Your task to perform on an android device: turn off notifications settings in the gmail app Image 0: 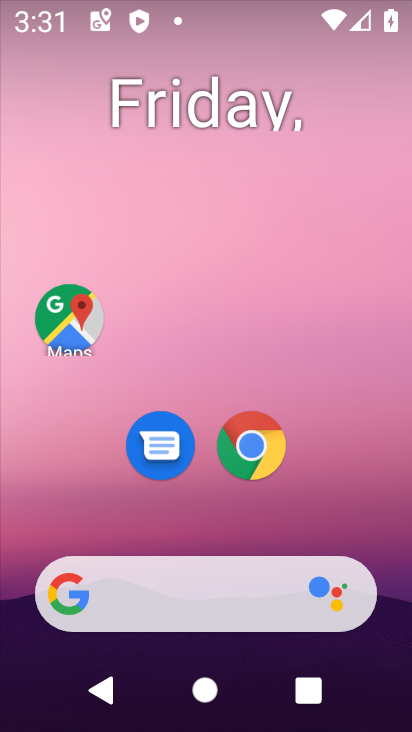
Step 0: drag from (196, 547) to (319, 11)
Your task to perform on an android device: turn off notifications settings in the gmail app Image 1: 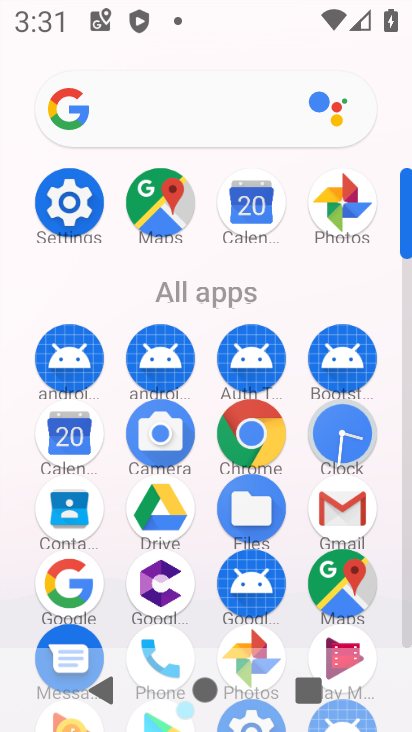
Step 1: click (344, 510)
Your task to perform on an android device: turn off notifications settings in the gmail app Image 2: 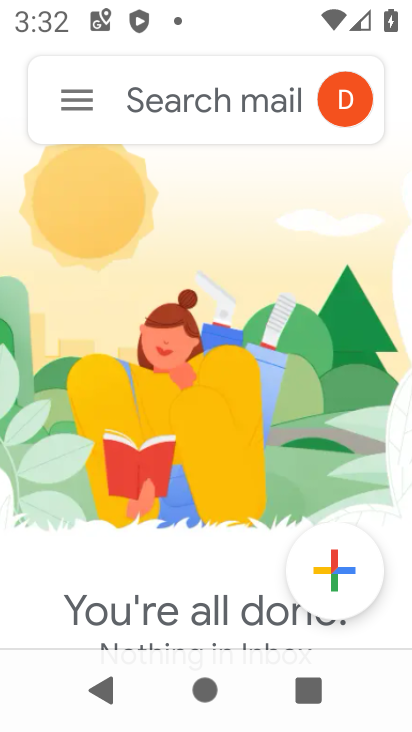
Step 2: click (83, 115)
Your task to perform on an android device: turn off notifications settings in the gmail app Image 3: 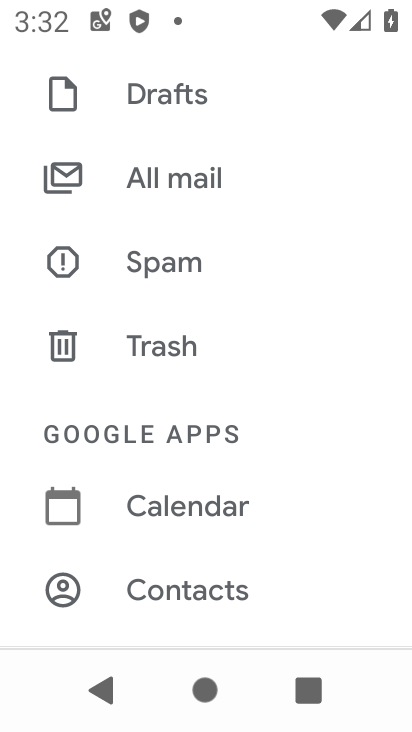
Step 3: drag from (145, 515) to (230, 156)
Your task to perform on an android device: turn off notifications settings in the gmail app Image 4: 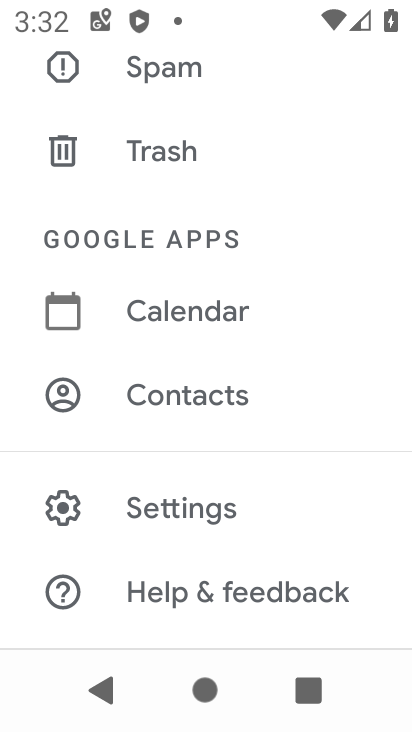
Step 4: click (172, 512)
Your task to perform on an android device: turn off notifications settings in the gmail app Image 5: 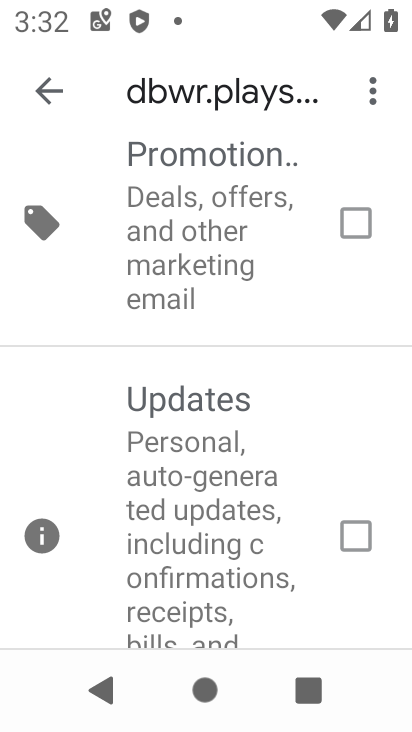
Step 5: click (56, 88)
Your task to perform on an android device: turn off notifications settings in the gmail app Image 6: 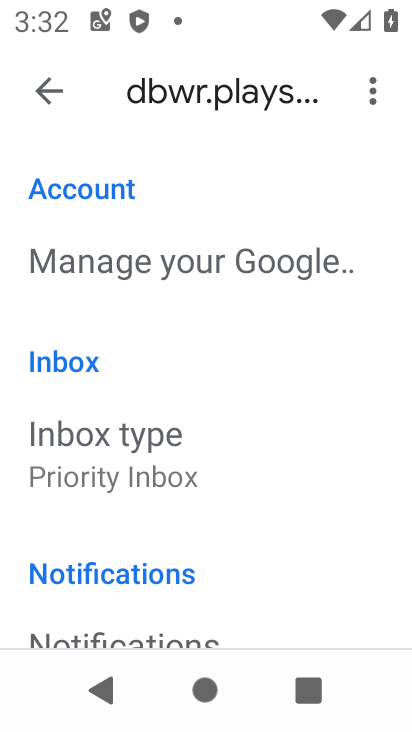
Step 6: click (51, 88)
Your task to perform on an android device: turn off notifications settings in the gmail app Image 7: 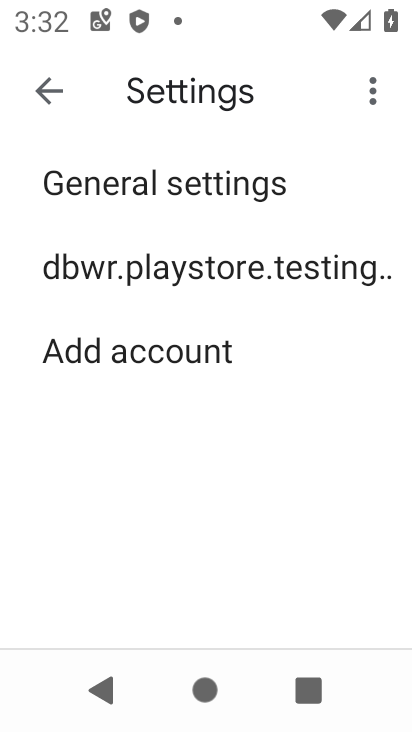
Step 7: click (176, 190)
Your task to perform on an android device: turn off notifications settings in the gmail app Image 8: 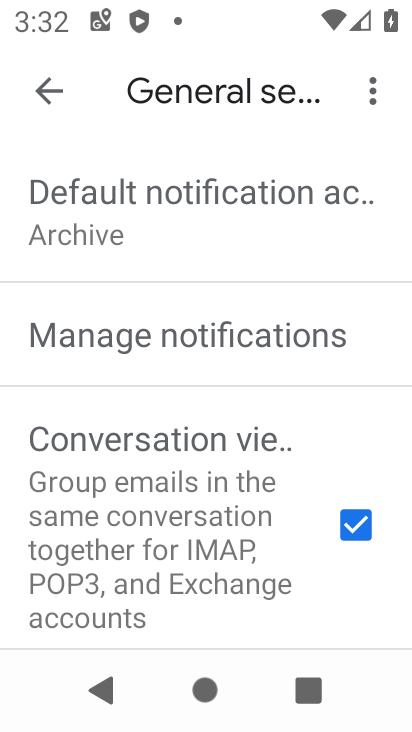
Step 8: click (204, 345)
Your task to perform on an android device: turn off notifications settings in the gmail app Image 9: 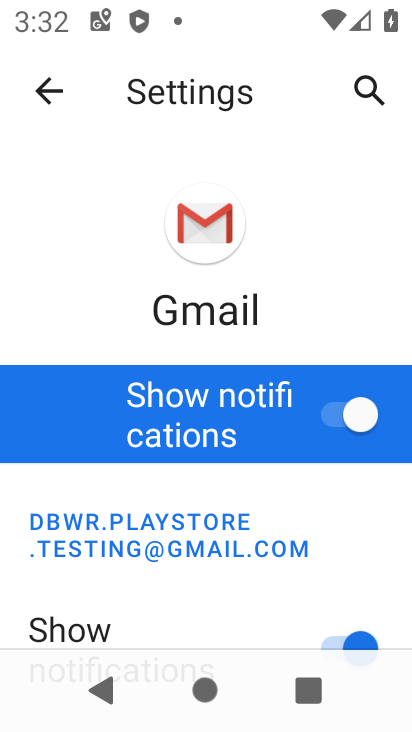
Step 9: click (325, 428)
Your task to perform on an android device: turn off notifications settings in the gmail app Image 10: 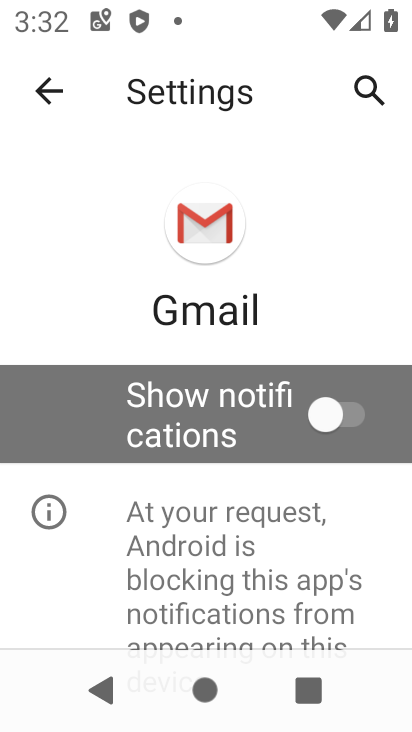
Step 10: task complete